Your task to perform on an android device: Search for "dell xps" on walmart, select the first entry, add it to the cart, then select checkout. Image 0: 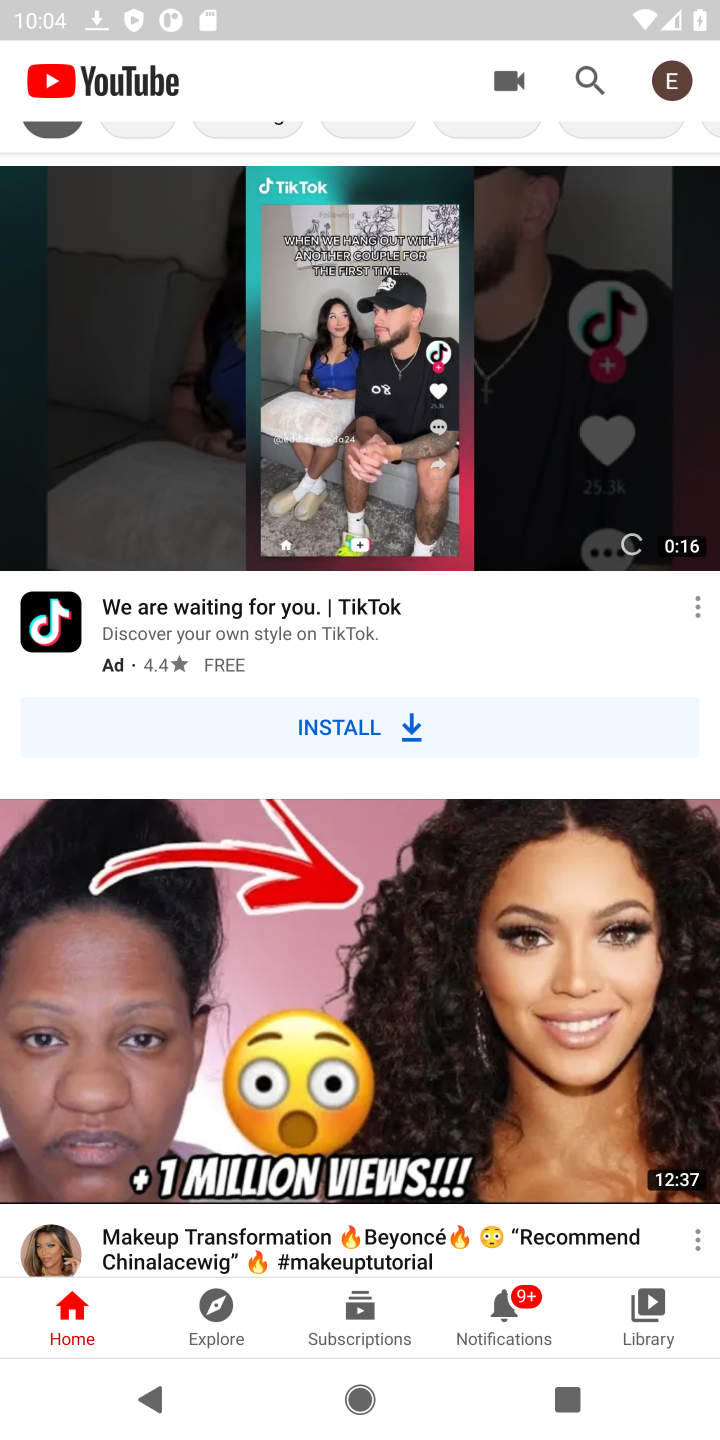
Step 0: press home button
Your task to perform on an android device: Search for "dell xps" on walmart, select the first entry, add it to the cart, then select checkout. Image 1: 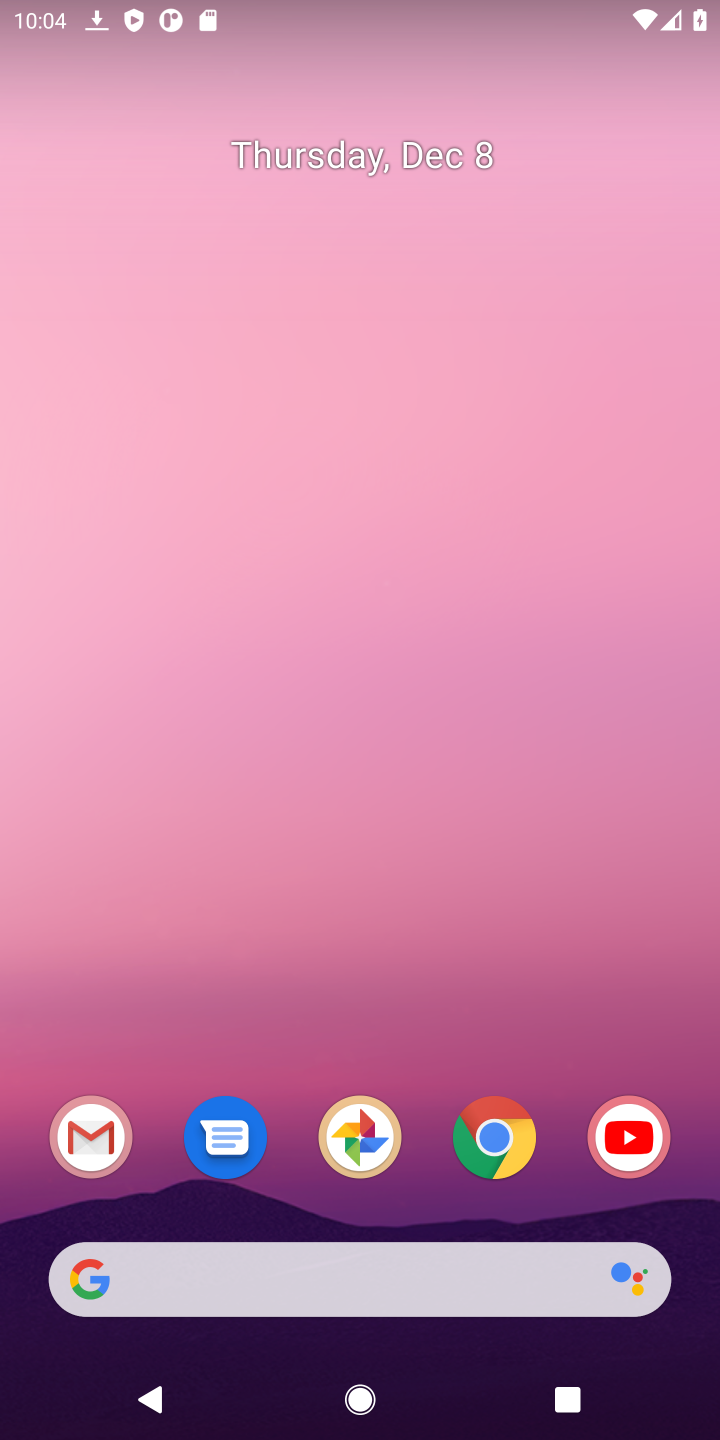
Step 1: click (501, 1155)
Your task to perform on an android device: Search for "dell xps" on walmart, select the first entry, add it to the cart, then select checkout. Image 2: 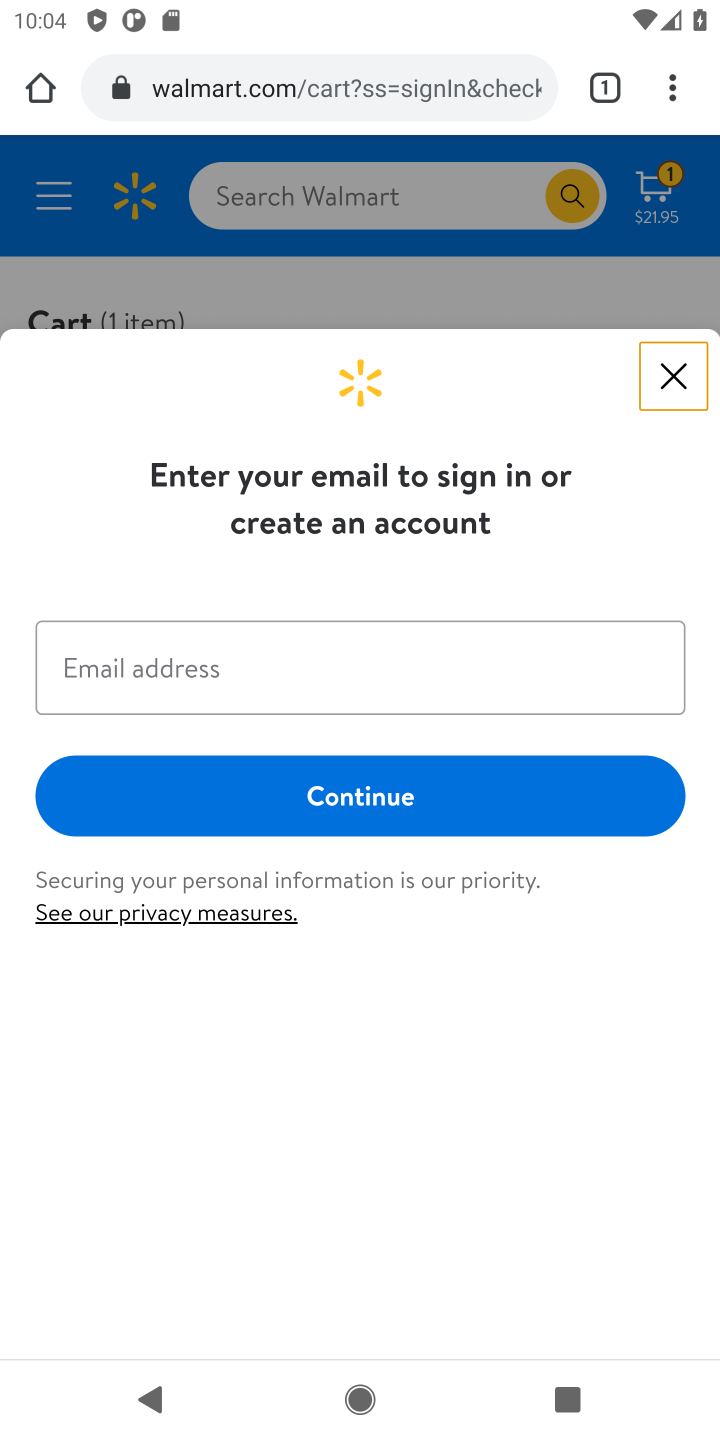
Step 2: click (671, 386)
Your task to perform on an android device: Search for "dell xps" on walmart, select the first entry, add it to the cart, then select checkout. Image 3: 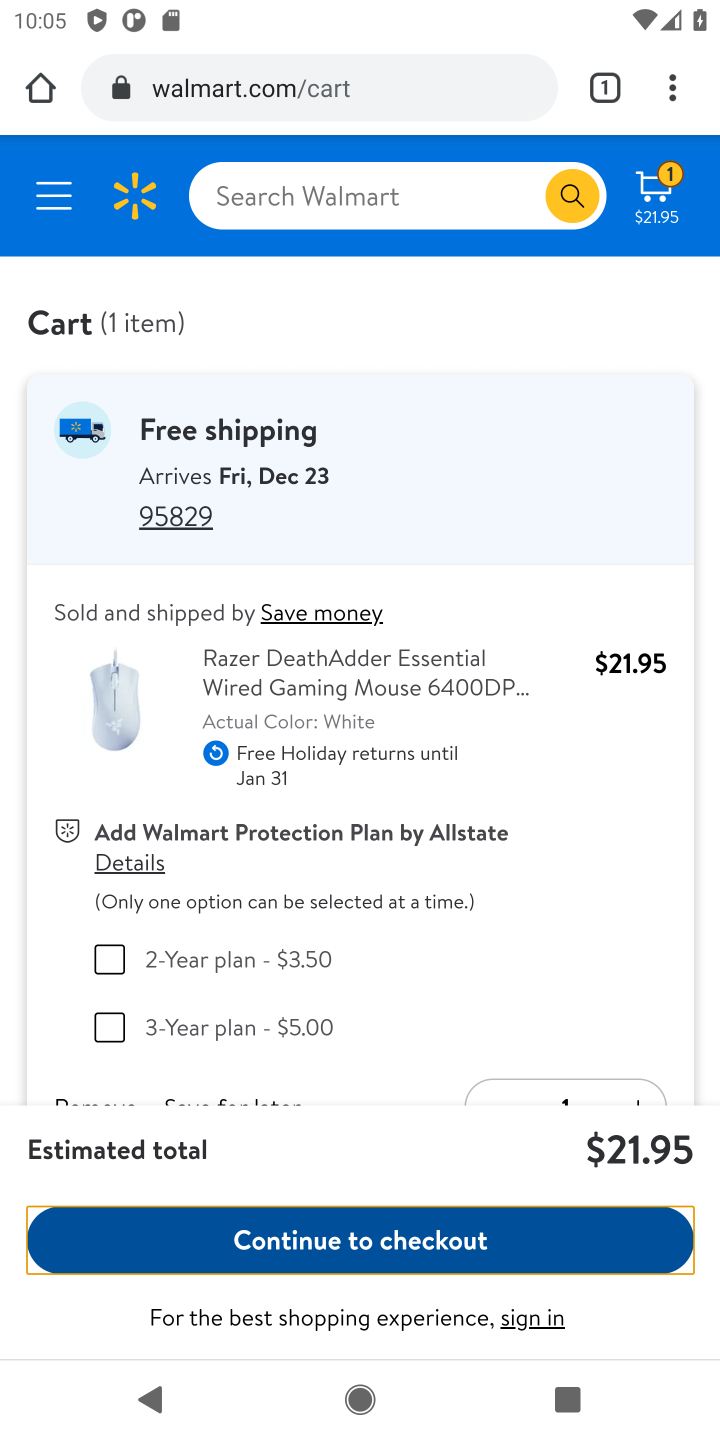
Step 3: click (447, 197)
Your task to perform on an android device: Search for "dell xps" on walmart, select the first entry, add it to the cart, then select checkout. Image 4: 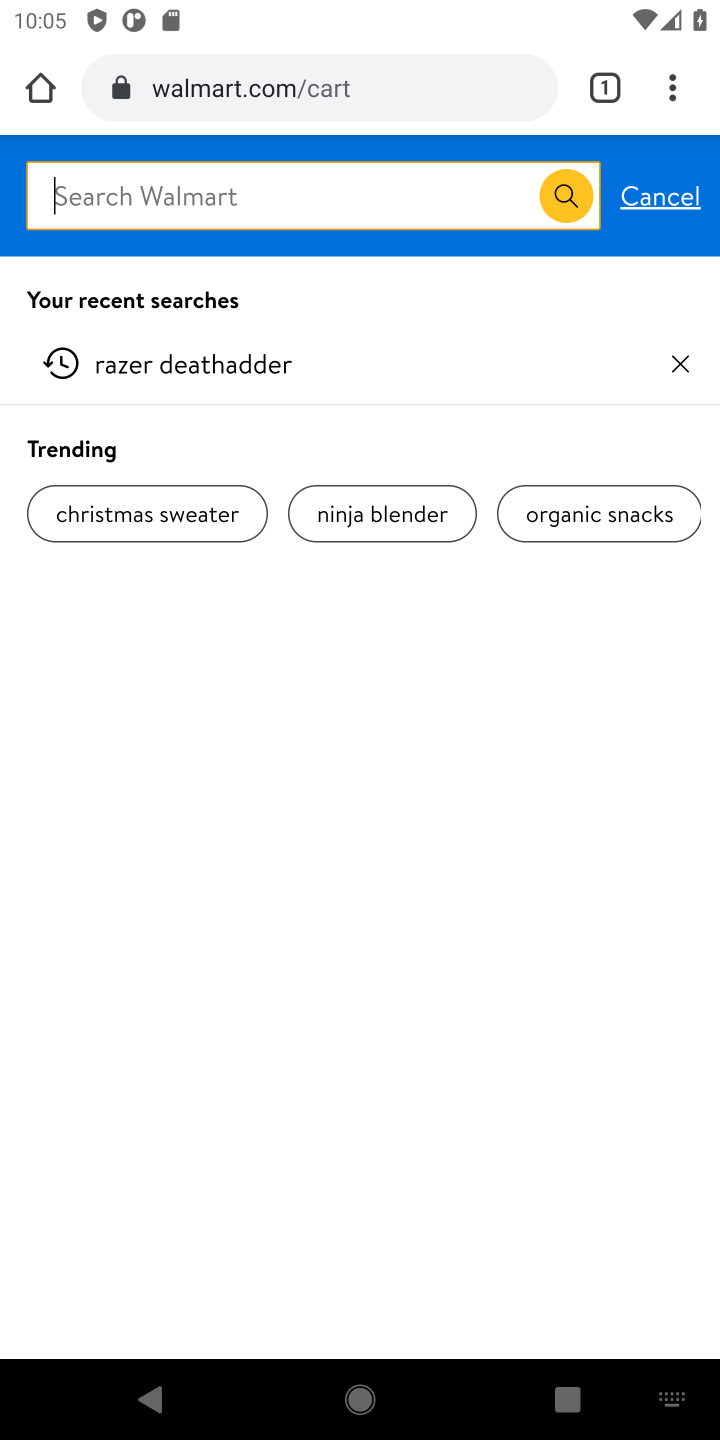
Step 4: type "dell xps"
Your task to perform on an android device: Search for "dell xps" on walmart, select the first entry, add it to the cart, then select checkout. Image 5: 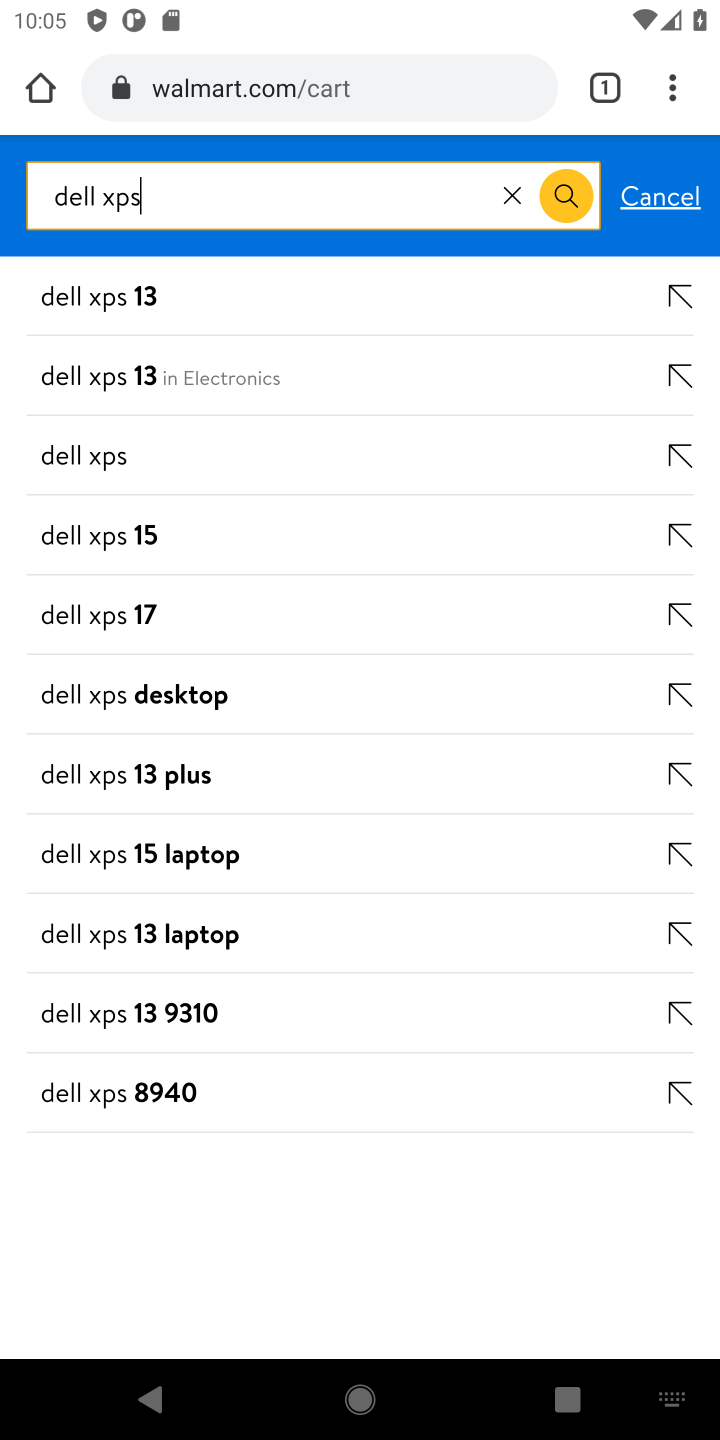
Step 5: click (131, 292)
Your task to perform on an android device: Search for "dell xps" on walmart, select the first entry, add it to the cart, then select checkout. Image 6: 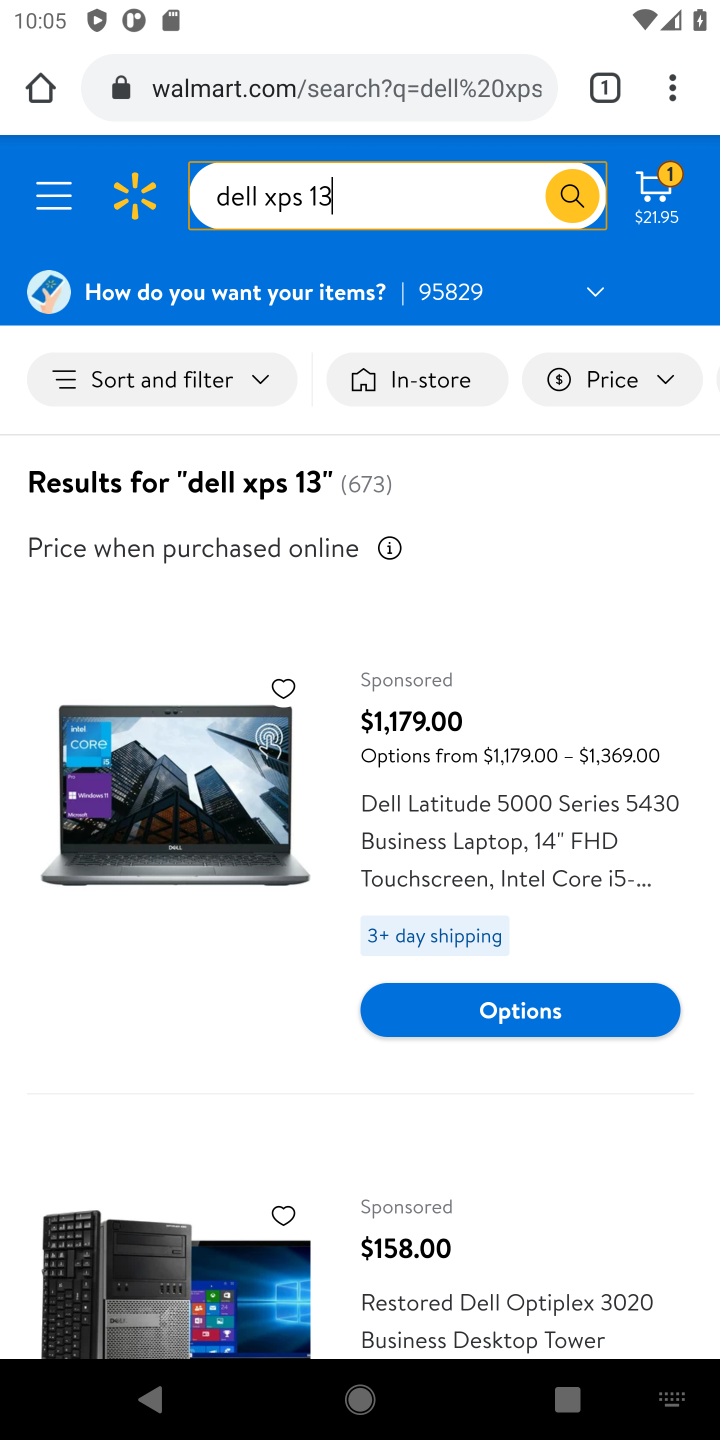
Step 6: click (169, 821)
Your task to perform on an android device: Search for "dell xps" on walmart, select the first entry, add it to the cart, then select checkout. Image 7: 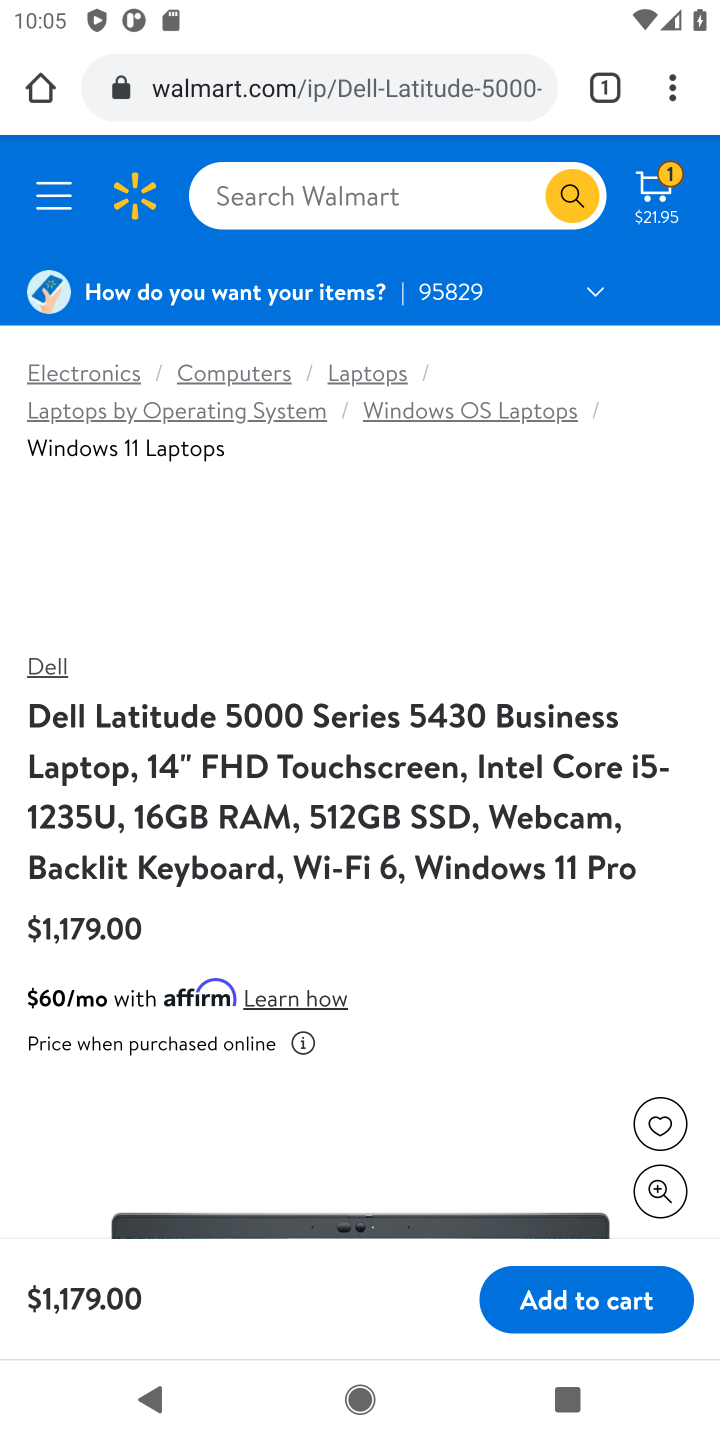
Step 7: click (546, 1302)
Your task to perform on an android device: Search for "dell xps" on walmart, select the first entry, add it to the cart, then select checkout. Image 8: 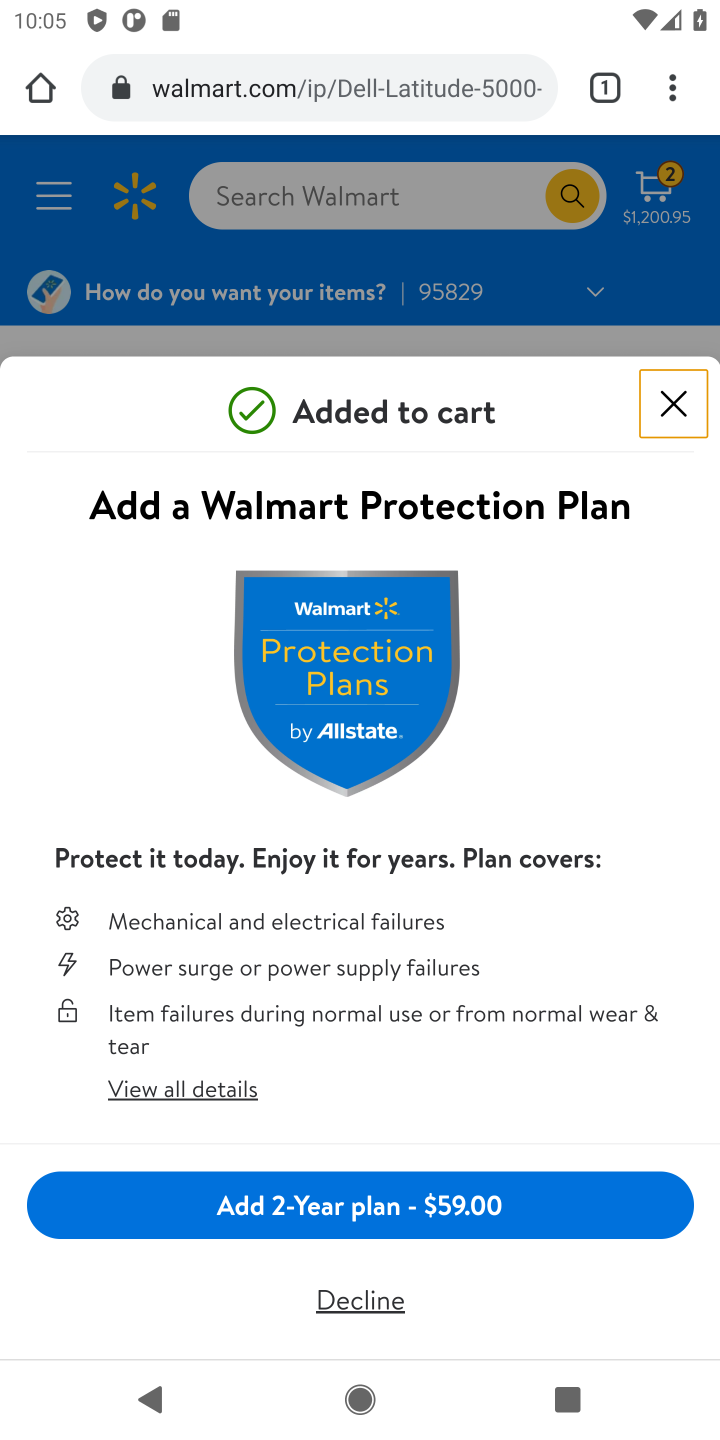
Step 8: click (376, 1293)
Your task to perform on an android device: Search for "dell xps" on walmart, select the first entry, add it to the cart, then select checkout. Image 9: 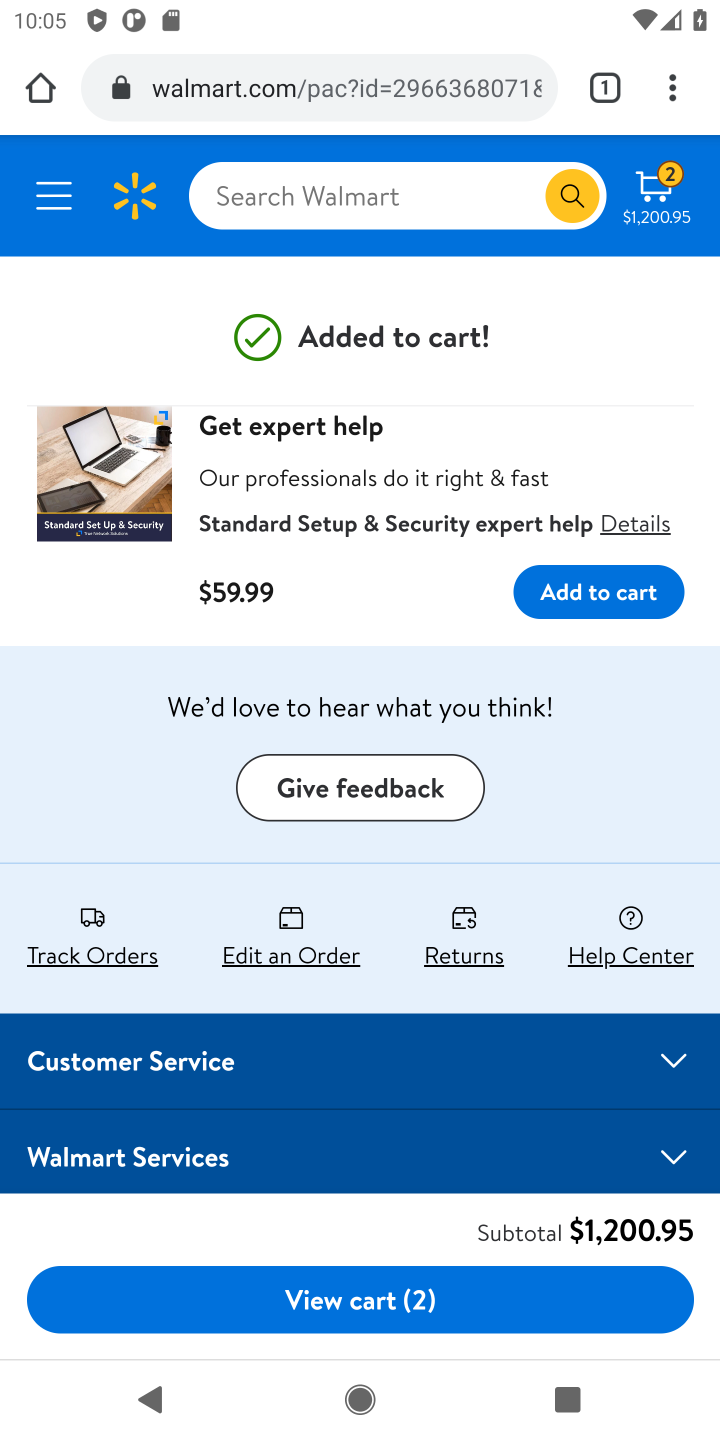
Step 9: click (388, 1316)
Your task to perform on an android device: Search for "dell xps" on walmart, select the first entry, add it to the cart, then select checkout. Image 10: 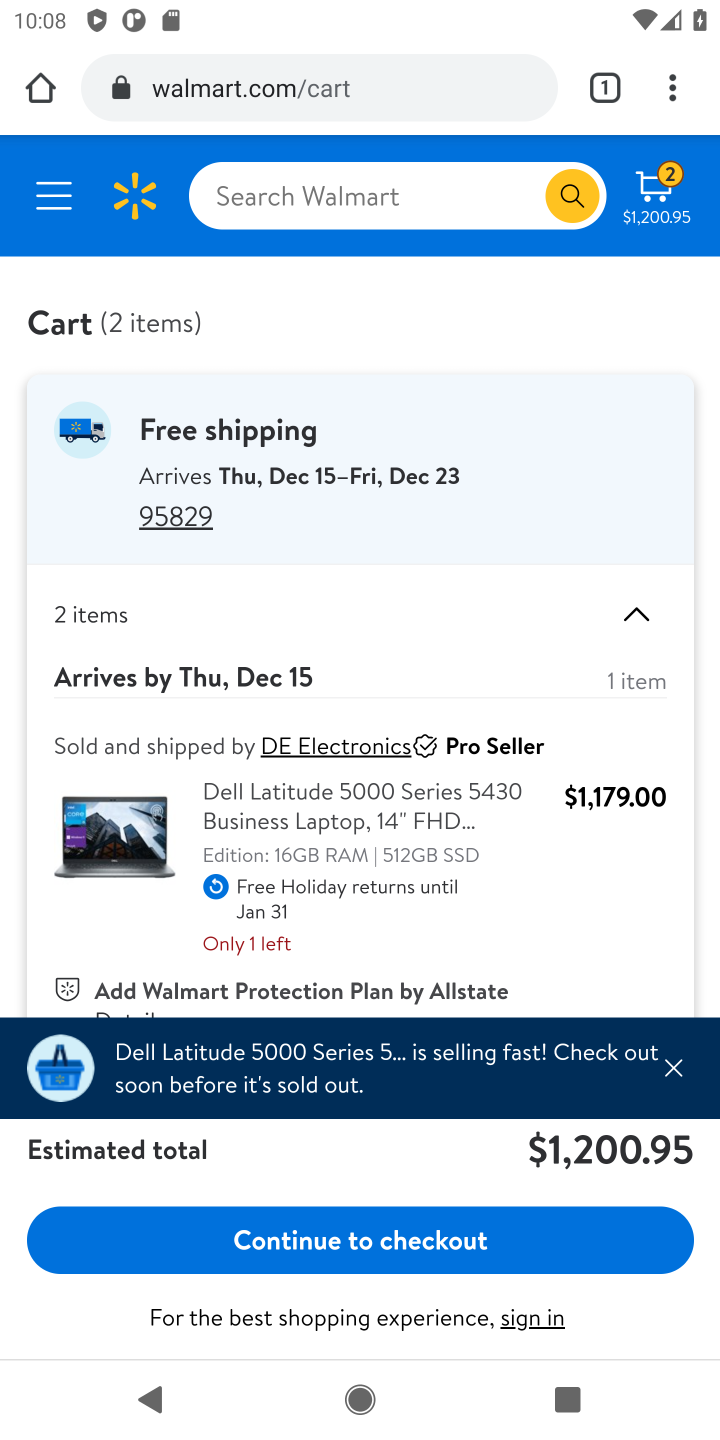
Step 10: click (474, 1248)
Your task to perform on an android device: Search for "dell xps" on walmart, select the first entry, add it to the cart, then select checkout. Image 11: 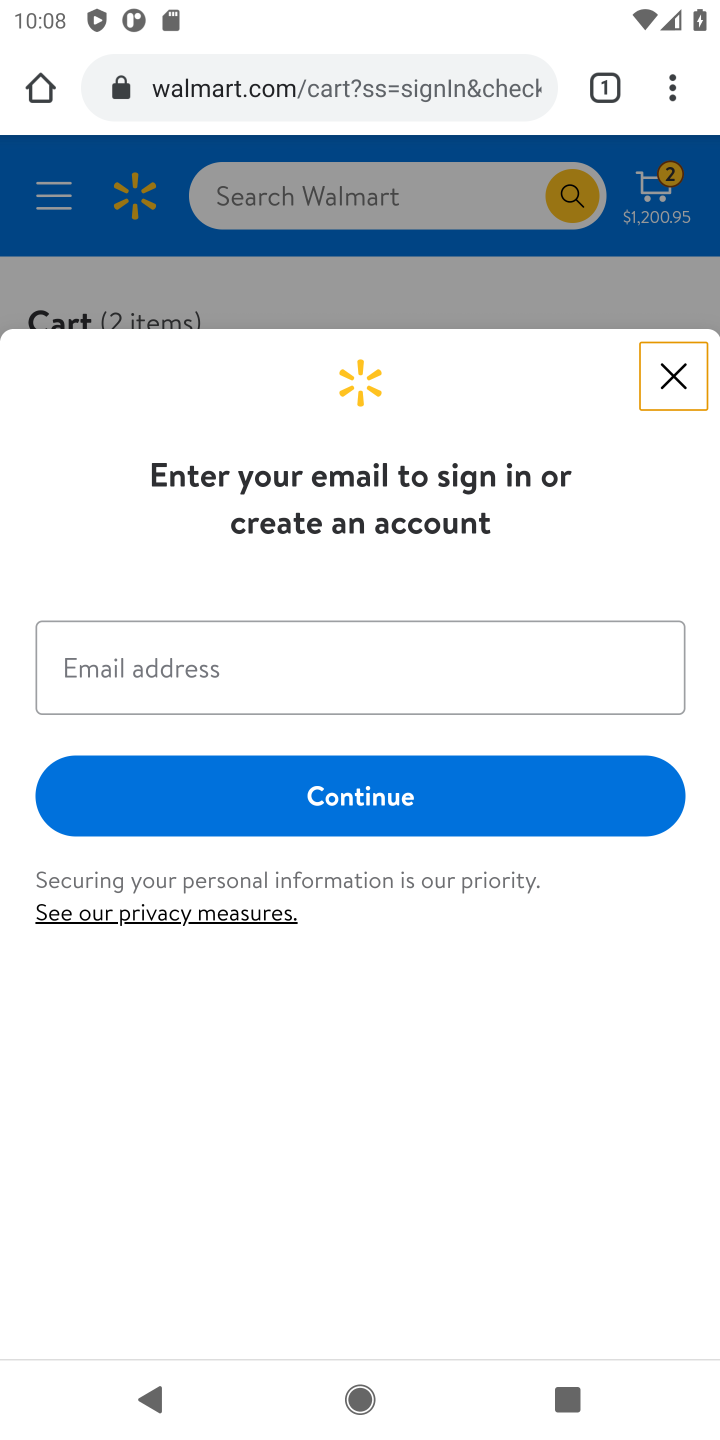
Step 11: task complete